Your task to perform on an android device: find snoozed emails in the gmail app Image 0: 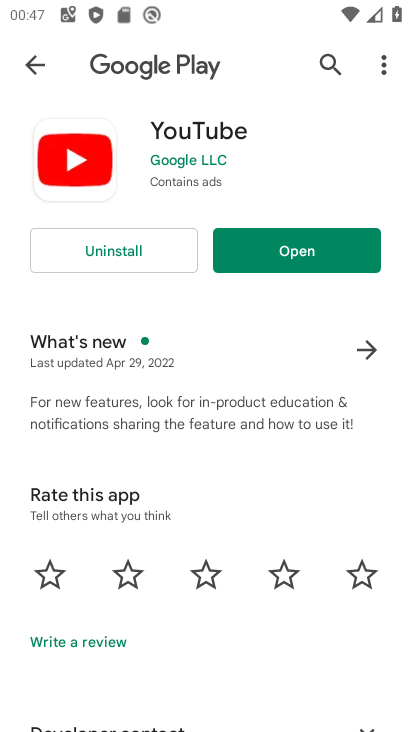
Step 0: press home button
Your task to perform on an android device: find snoozed emails in the gmail app Image 1: 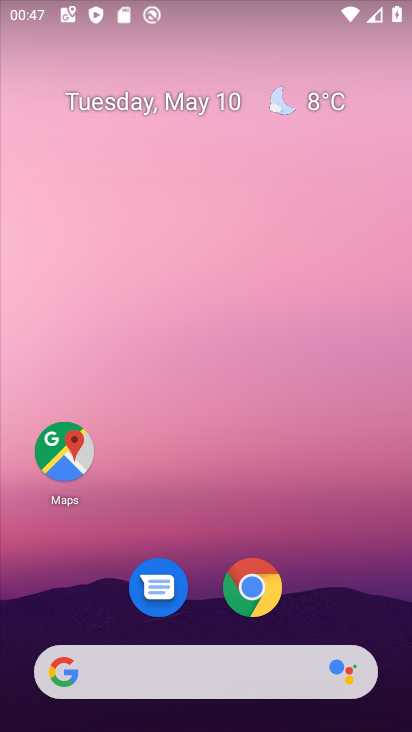
Step 1: drag from (391, 653) to (338, 225)
Your task to perform on an android device: find snoozed emails in the gmail app Image 2: 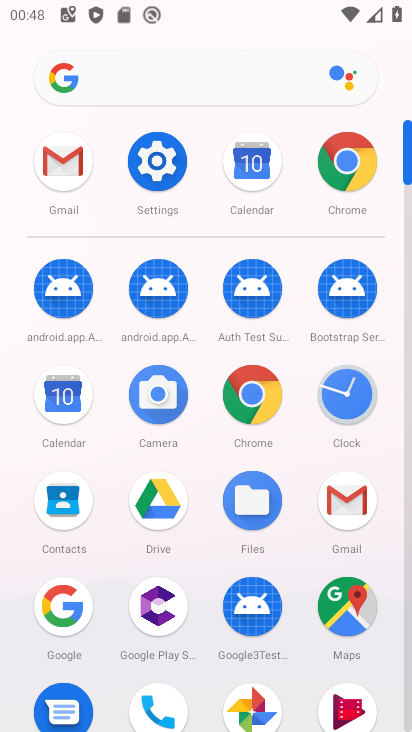
Step 2: click (339, 508)
Your task to perform on an android device: find snoozed emails in the gmail app Image 3: 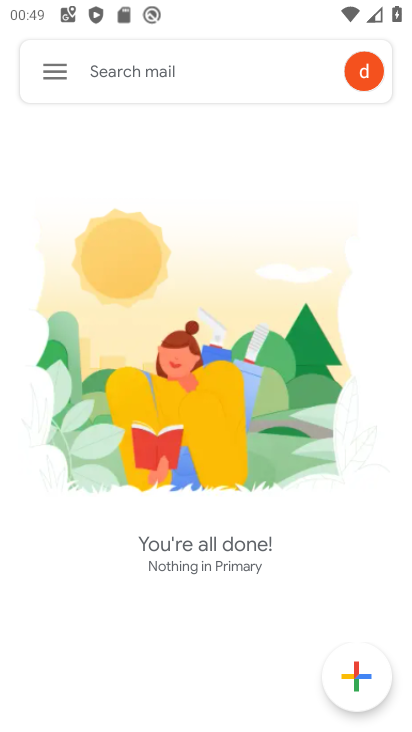
Step 3: click (57, 66)
Your task to perform on an android device: find snoozed emails in the gmail app Image 4: 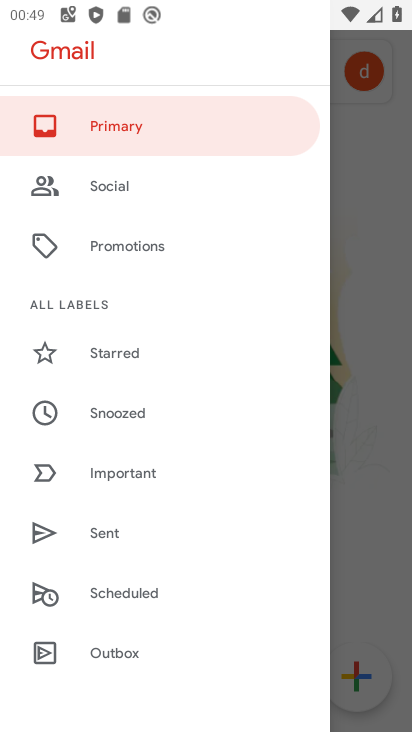
Step 4: click (115, 406)
Your task to perform on an android device: find snoozed emails in the gmail app Image 5: 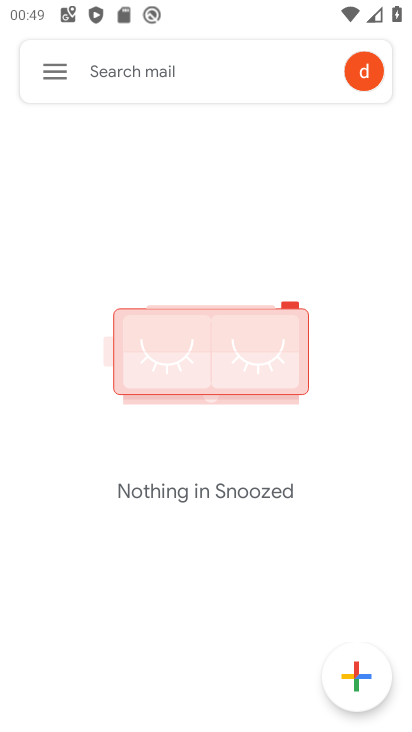
Step 5: task complete